Your task to perform on an android device: Open network settings Image 0: 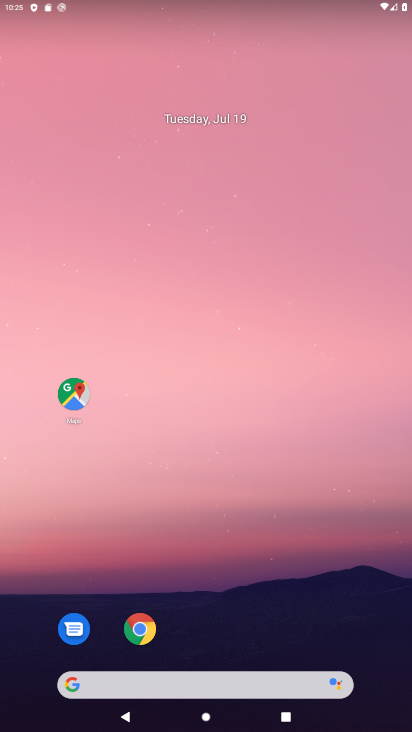
Step 0: drag from (239, 665) to (214, 23)
Your task to perform on an android device: Open network settings Image 1: 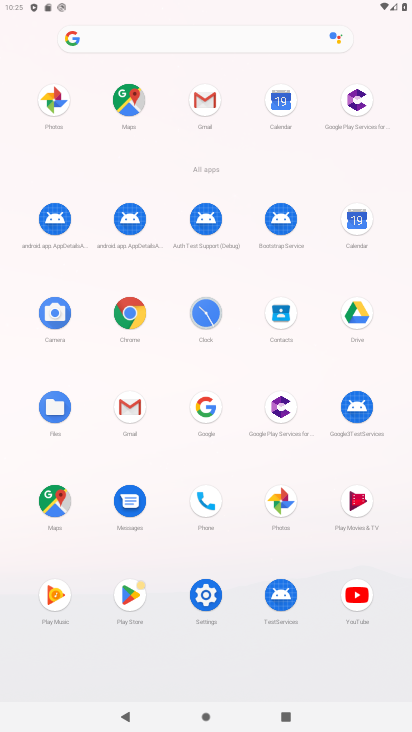
Step 1: click (202, 589)
Your task to perform on an android device: Open network settings Image 2: 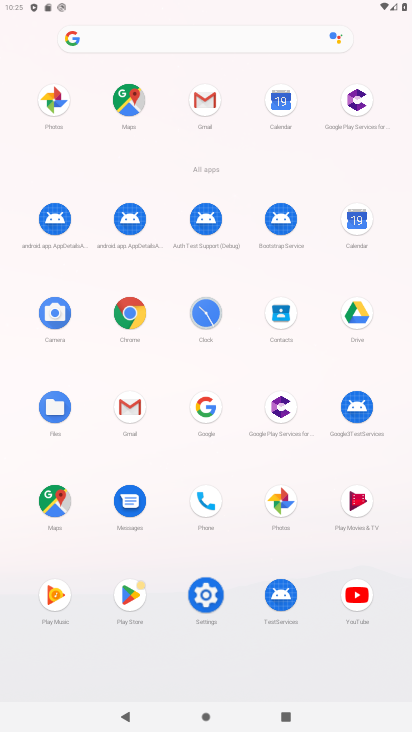
Step 2: click (204, 589)
Your task to perform on an android device: Open network settings Image 3: 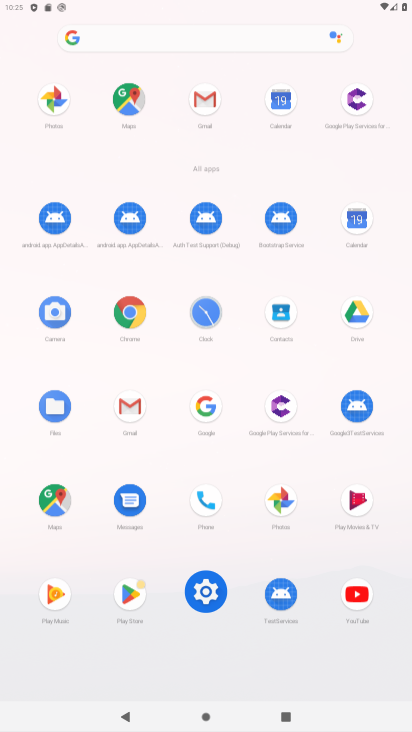
Step 3: click (204, 589)
Your task to perform on an android device: Open network settings Image 4: 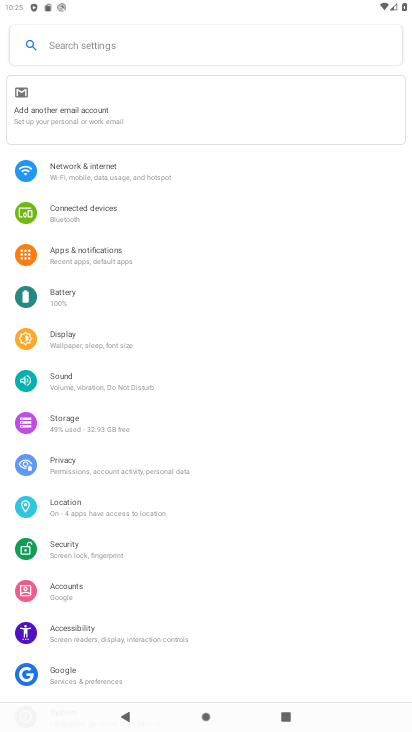
Step 4: click (72, 334)
Your task to perform on an android device: Open network settings Image 5: 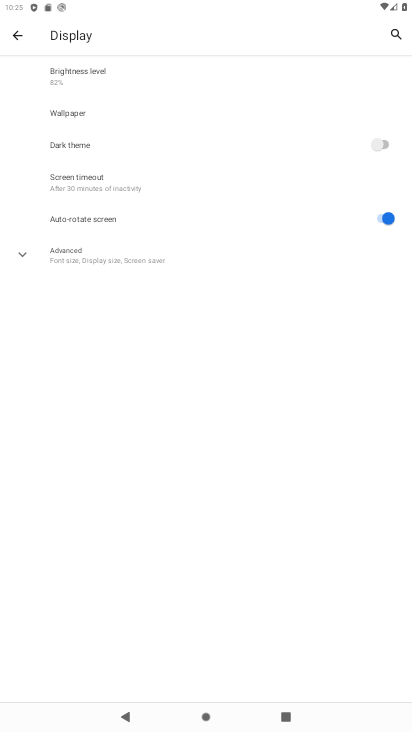
Step 5: click (71, 244)
Your task to perform on an android device: Open network settings Image 6: 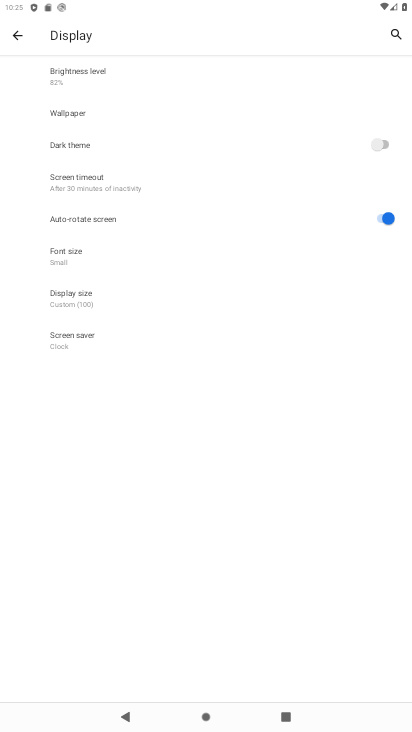
Step 6: click (73, 247)
Your task to perform on an android device: Open network settings Image 7: 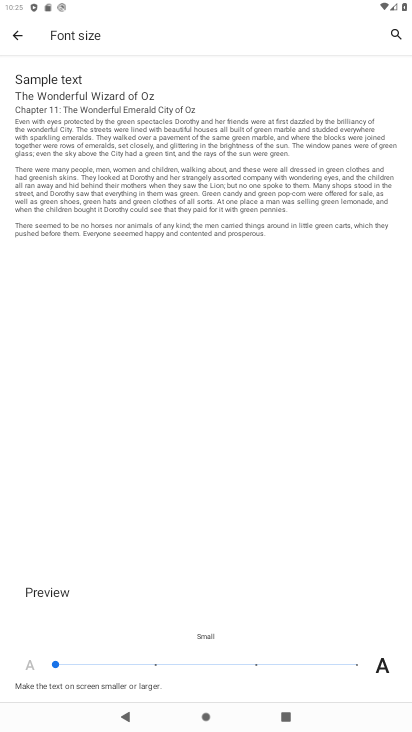
Step 7: click (358, 661)
Your task to perform on an android device: Open network settings Image 8: 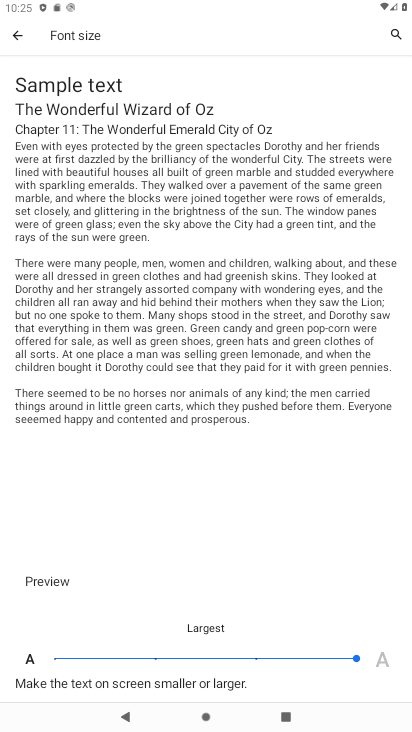
Step 8: click (14, 36)
Your task to perform on an android device: Open network settings Image 9: 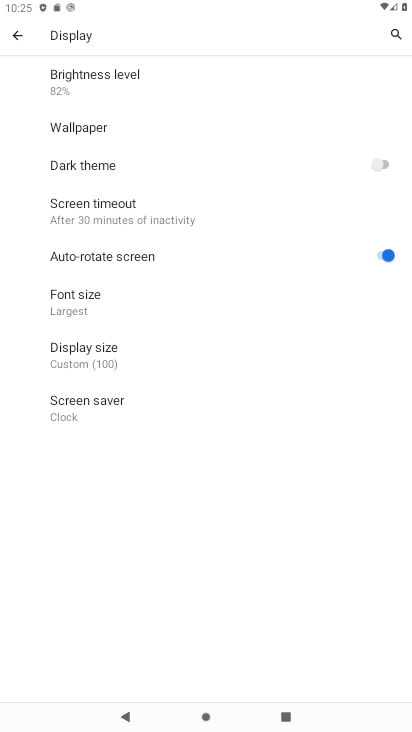
Step 9: click (18, 34)
Your task to perform on an android device: Open network settings Image 10: 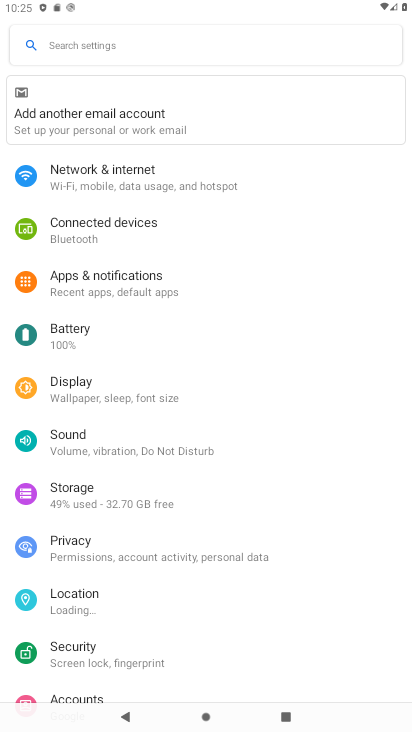
Step 10: click (124, 177)
Your task to perform on an android device: Open network settings Image 11: 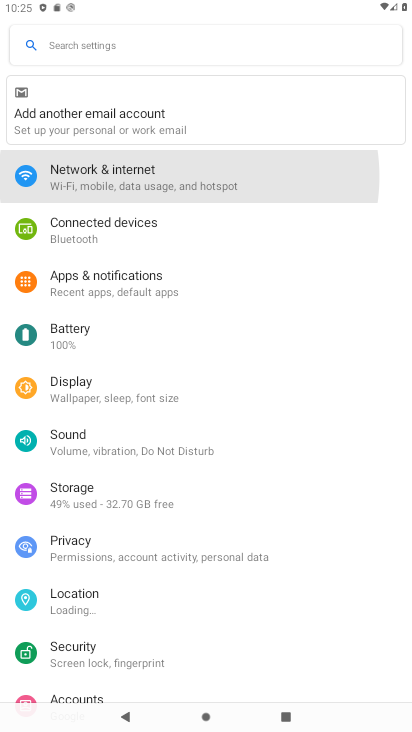
Step 11: click (126, 180)
Your task to perform on an android device: Open network settings Image 12: 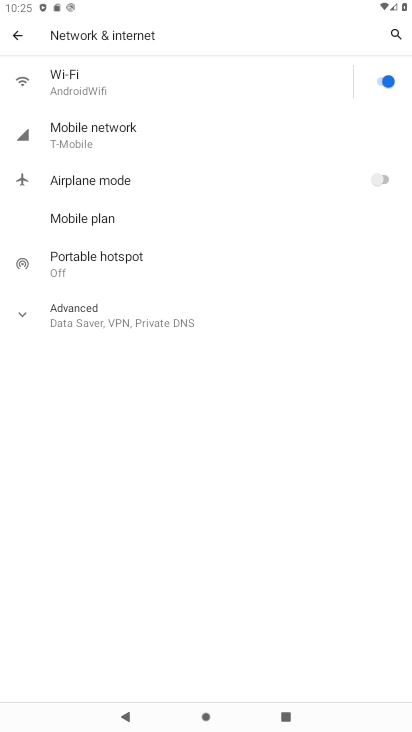
Step 12: task complete